Your task to perform on an android device: see creations saved in the google photos Image 0: 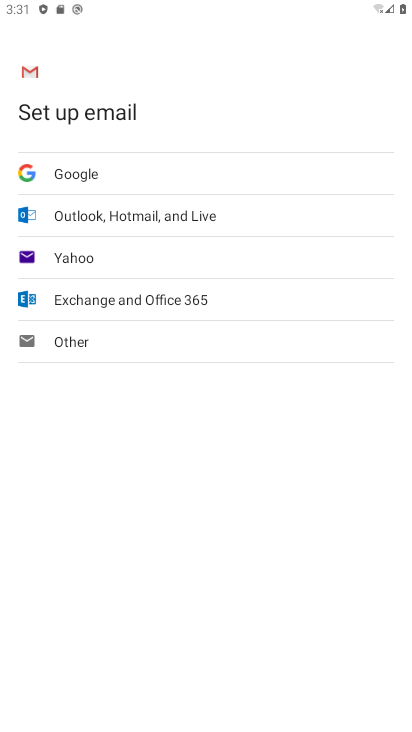
Step 0: click (409, 357)
Your task to perform on an android device: see creations saved in the google photos Image 1: 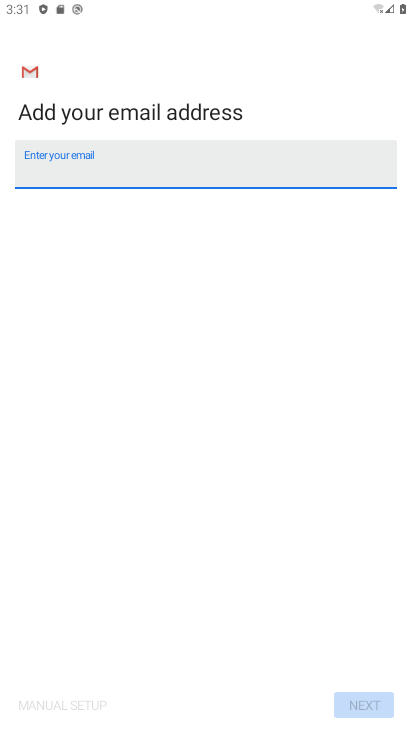
Step 1: press home button
Your task to perform on an android device: see creations saved in the google photos Image 2: 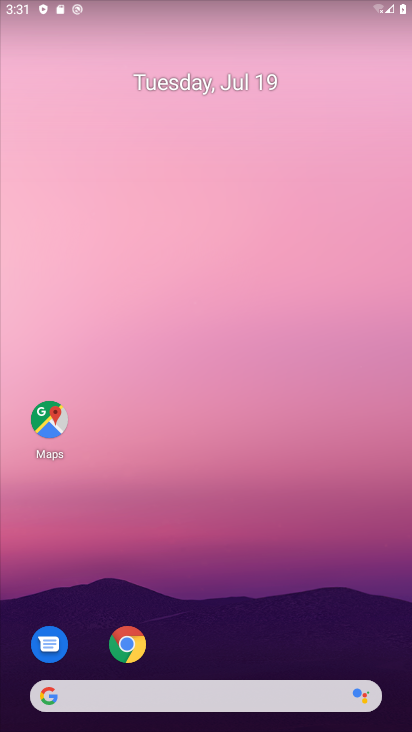
Step 2: drag from (200, 631) to (308, 231)
Your task to perform on an android device: see creations saved in the google photos Image 3: 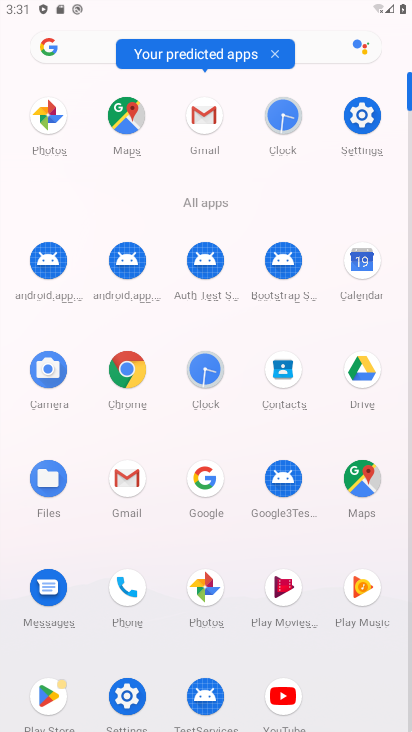
Step 3: click (212, 594)
Your task to perform on an android device: see creations saved in the google photos Image 4: 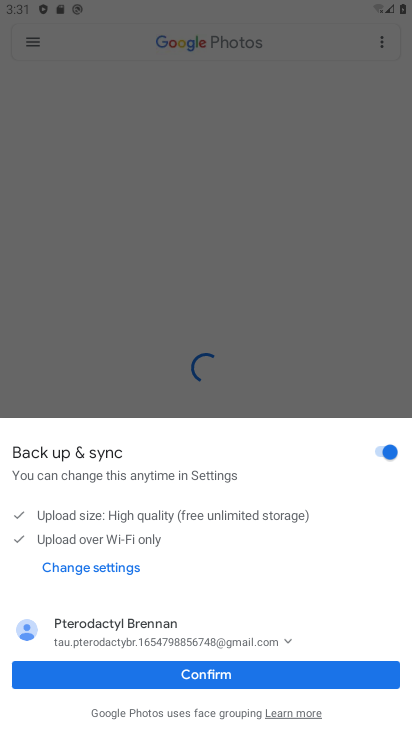
Step 4: click (230, 668)
Your task to perform on an android device: see creations saved in the google photos Image 5: 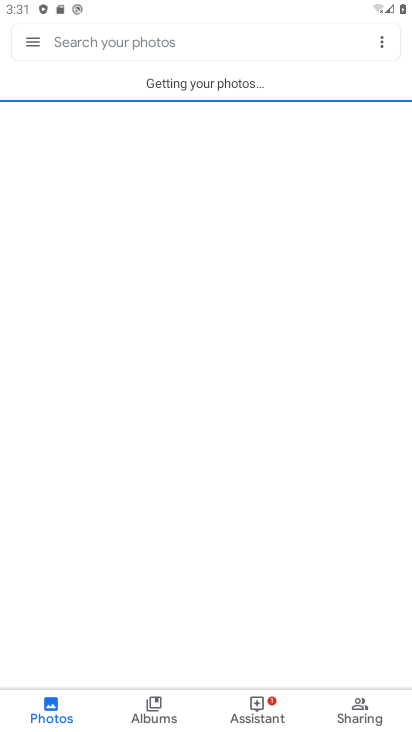
Step 5: click (216, 48)
Your task to perform on an android device: see creations saved in the google photos Image 6: 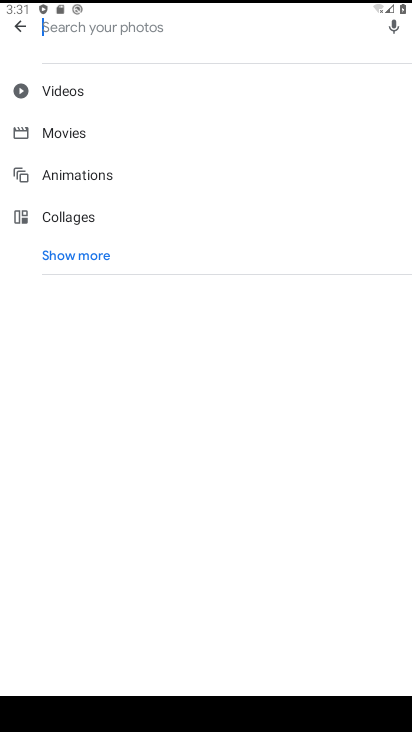
Step 6: click (97, 258)
Your task to perform on an android device: see creations saved in the google photos Image 7: 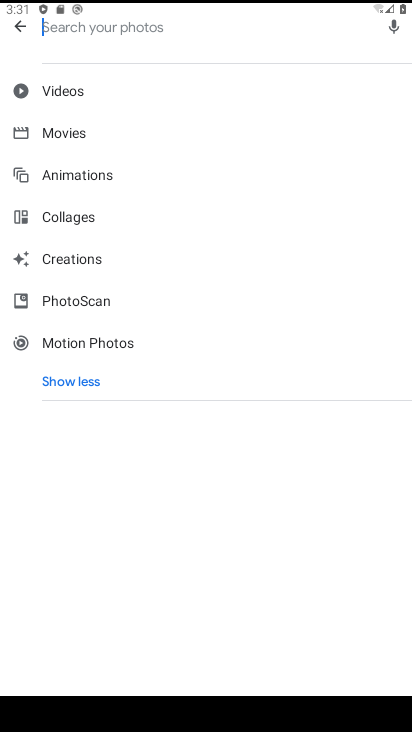
Step 7: click (104, 264)
Your task to perform on an android device: see creations saved in the google photos Image 8: 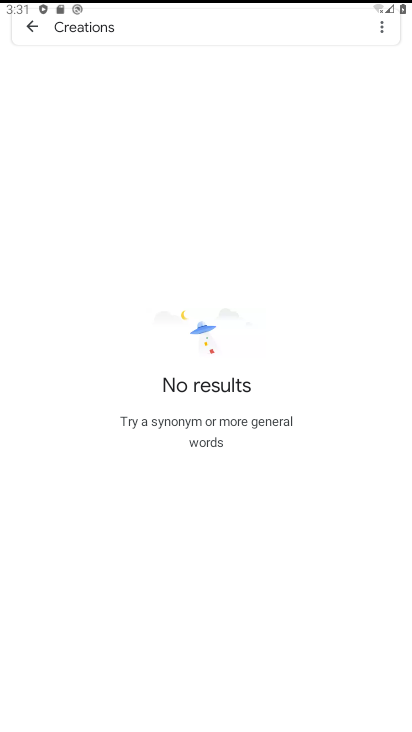
Step 8: task complete